Your task to perform on an android device: Open network settings Image 0: 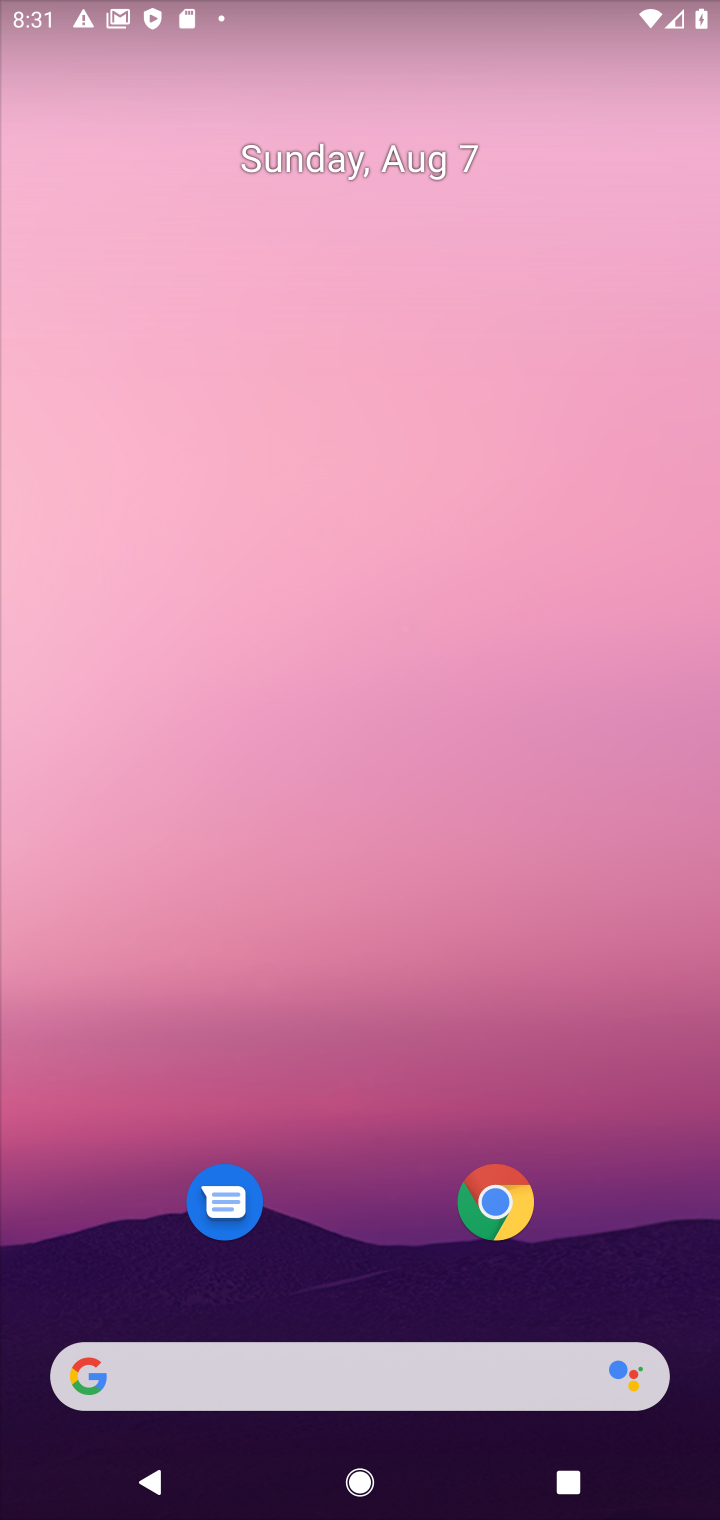
Step 0: drag from (338, 1155) to (335, 142)
Your task to perform on an android device: Open network settings Image 1: 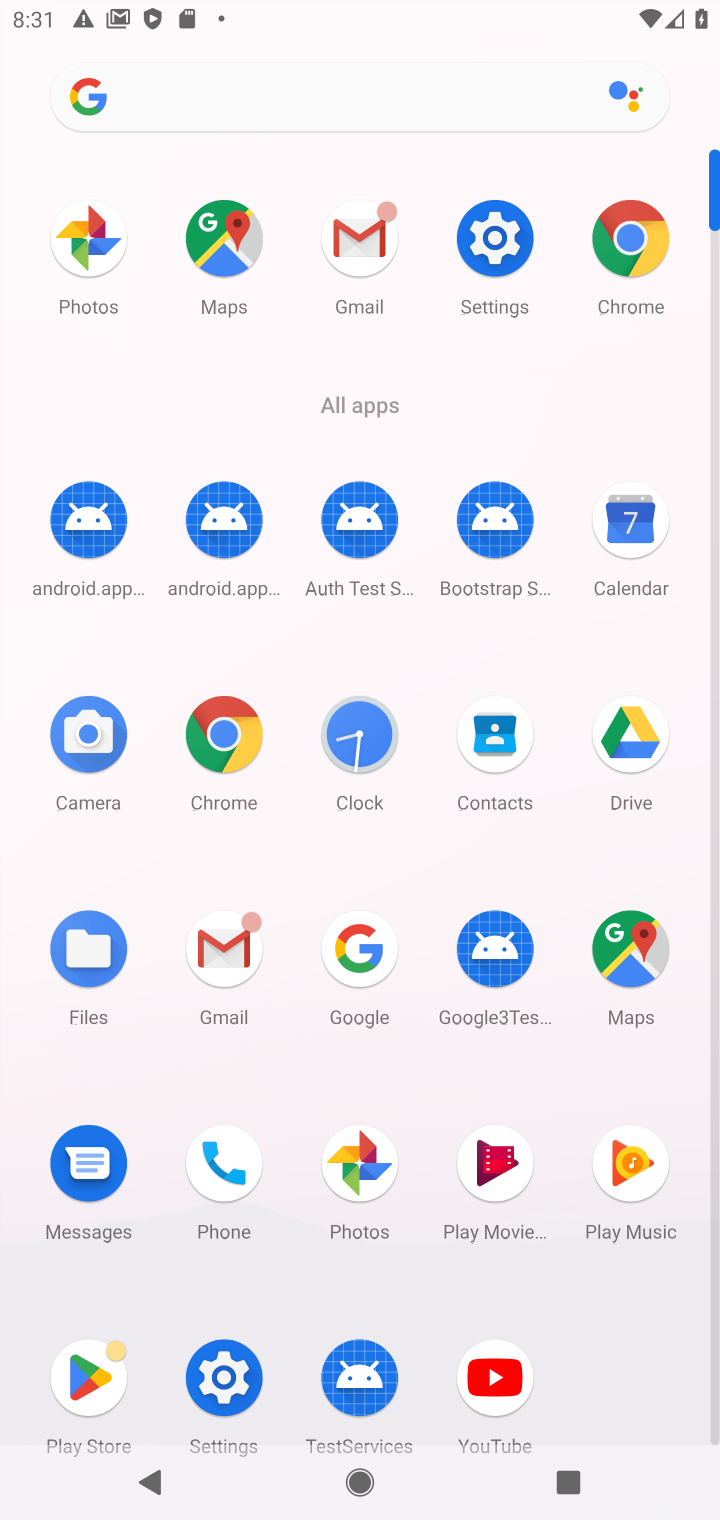
Step 1: click (490, 247)
Your task to perform on an android device: Open network settings Image 2: 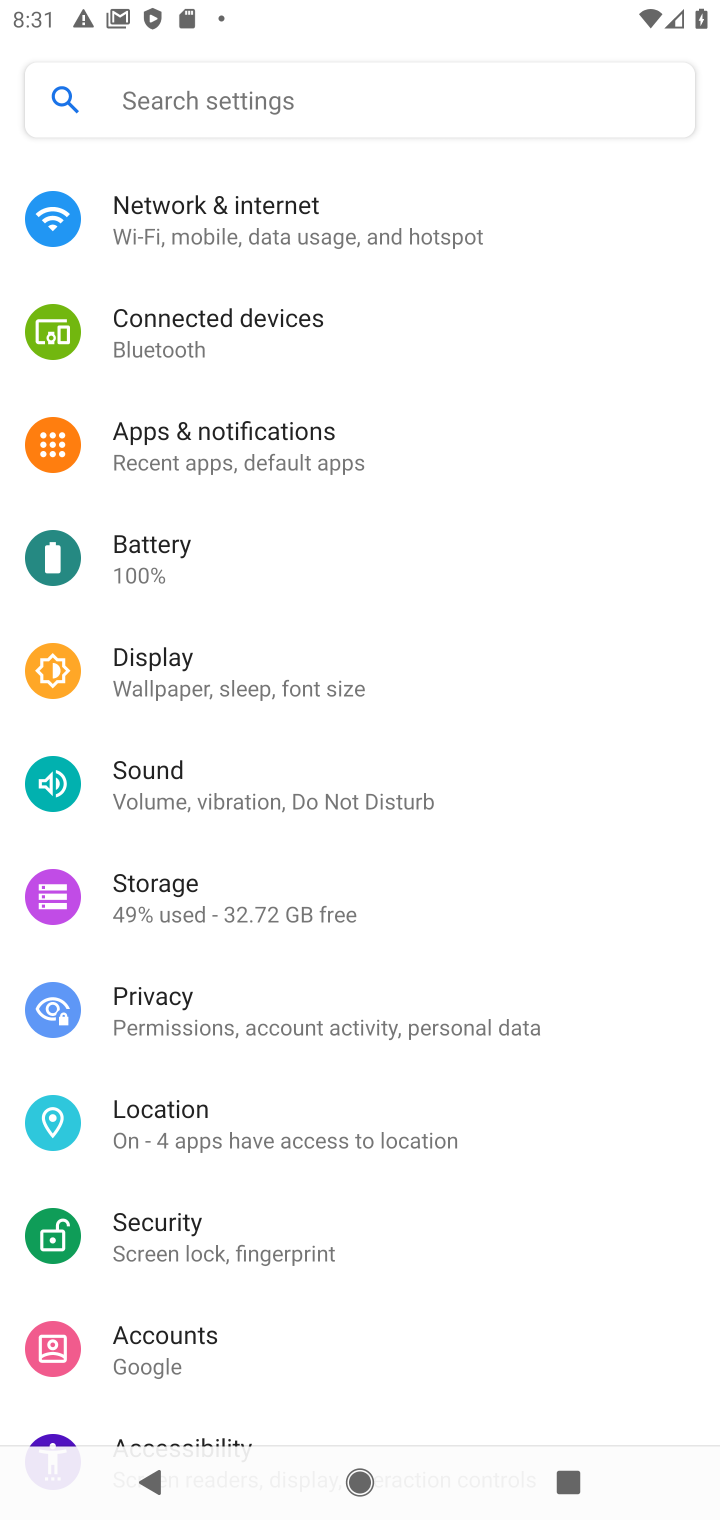
Step 2: click (498, 222)
Your task to perform on an android device: Open network settings Image 3: 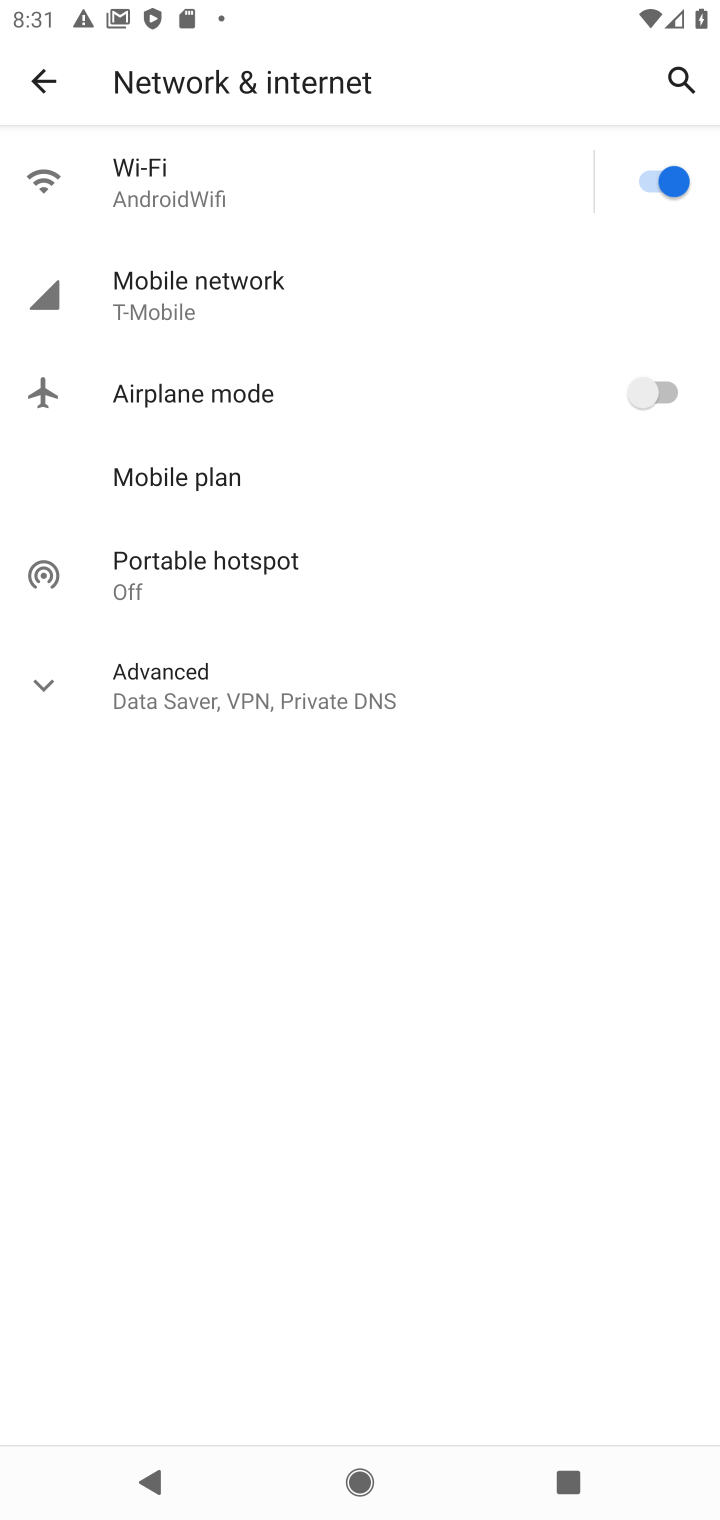
Step 3: task complete